Your task to perform on an android device: turn off notifications settings in the gmail app Image 0: 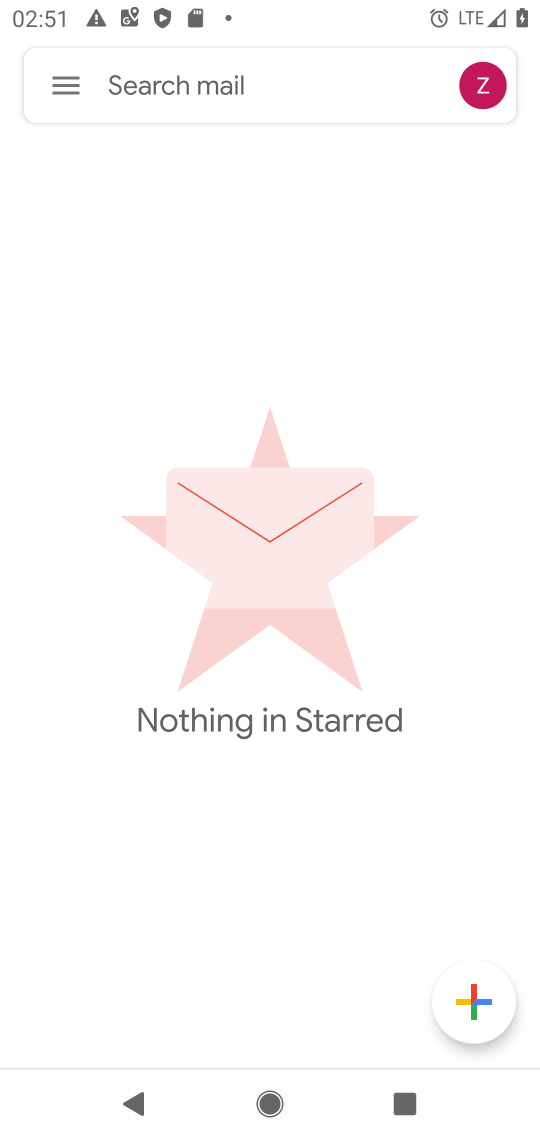
Step 0: press home button
Your task to perform on an android device: turn off notifications settings in the gmail app Image 1: 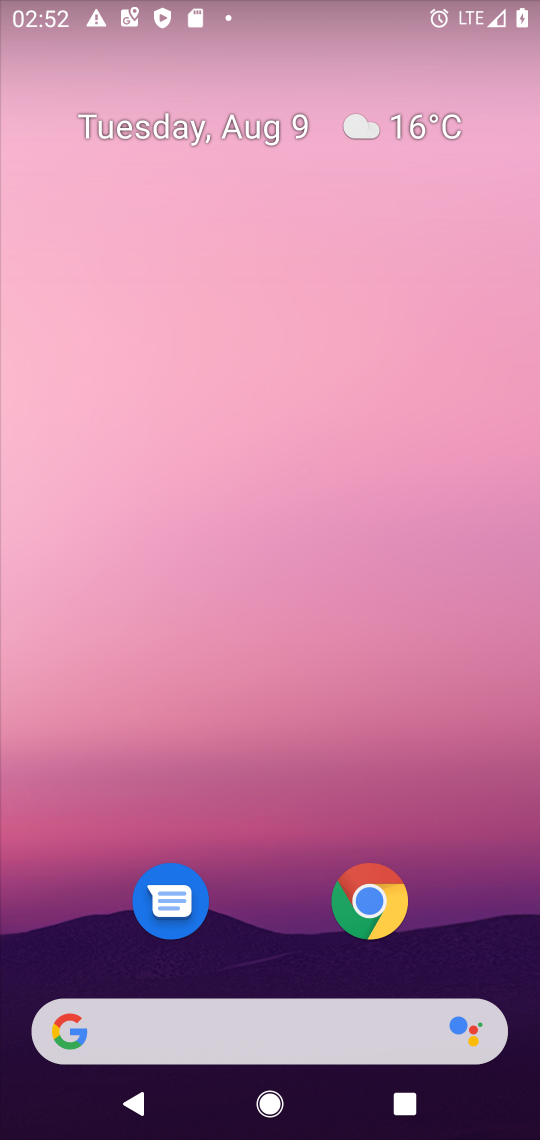
Step 1: drag from (496, 963) to (412, 195)
Your task to perform on an android device: turn off notifications settings in the gmail app Image 2: 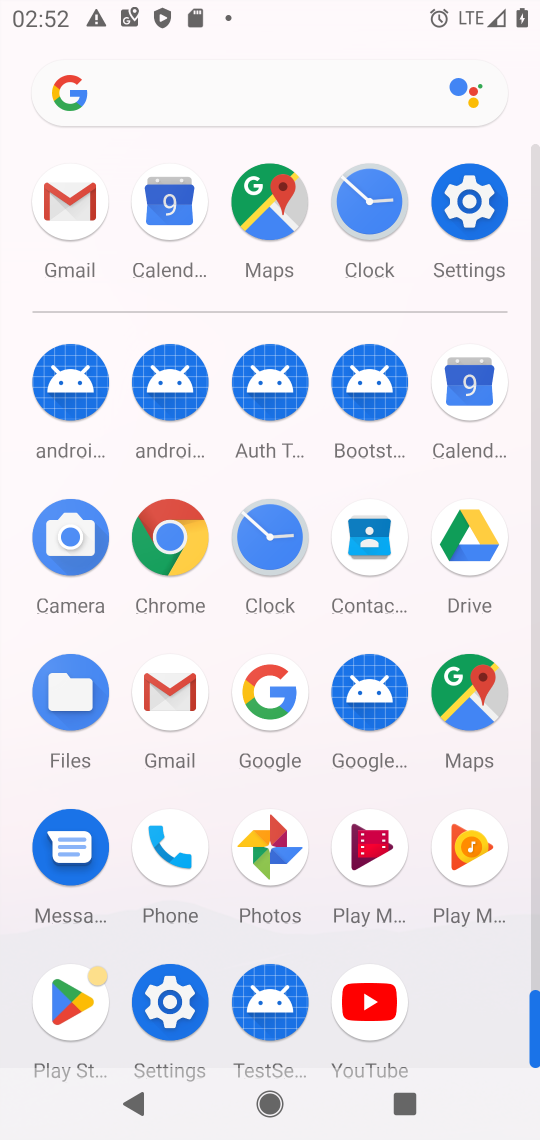
Step 2: click (170, 691)
Your task to perform on an android device: turn off notifications settings in the gmail app Image 3: 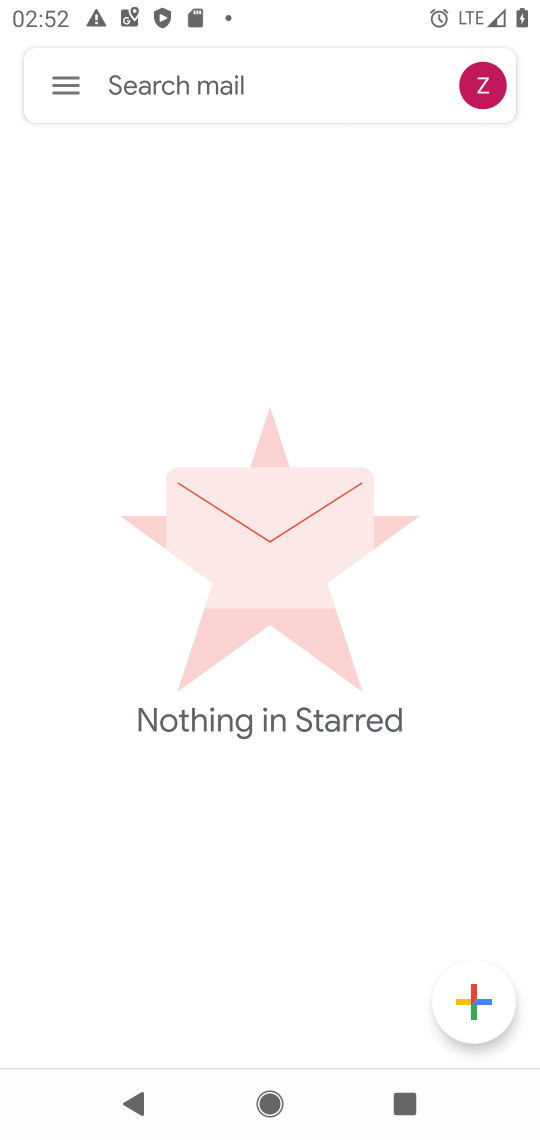
Step 3: click (59, 79)
Your task to perform on an android device: turn off notifications settings in the gmail app Image 4: 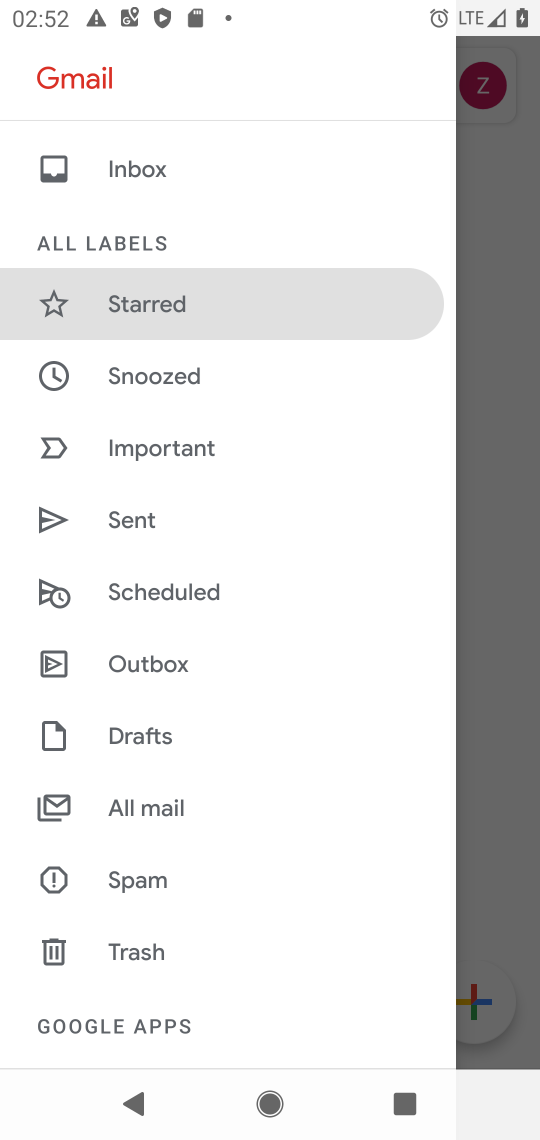
Step 4: drag from (241, 981) to (252, 416)
Your task to perform on an android device: turn off notifications settings in the gmail app Image 5: 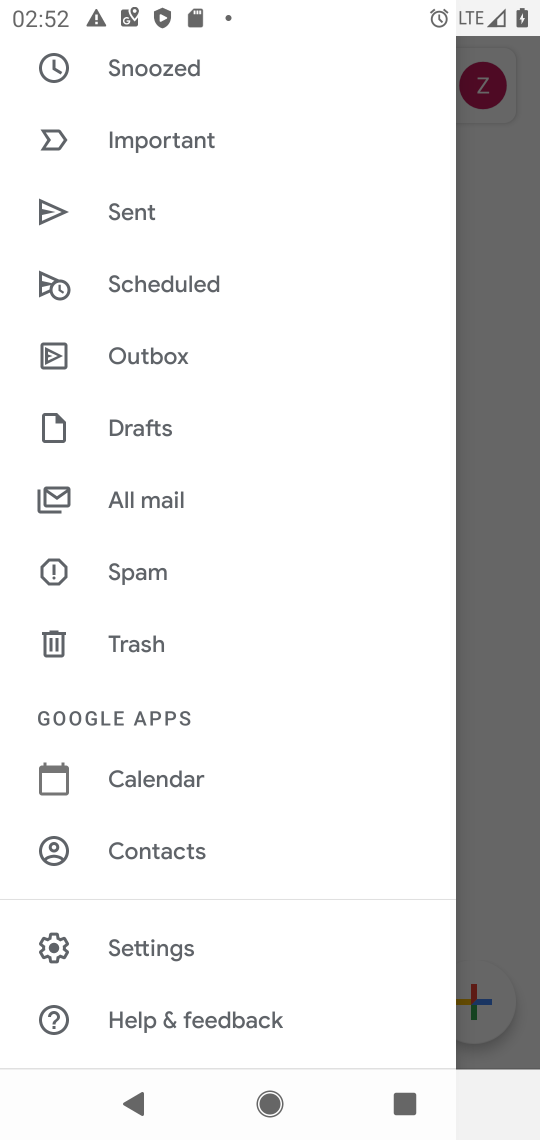
Step 5: click (163, 944)
Your task to perform on an android device: turn off notifications settings in the gmail app Image 6: 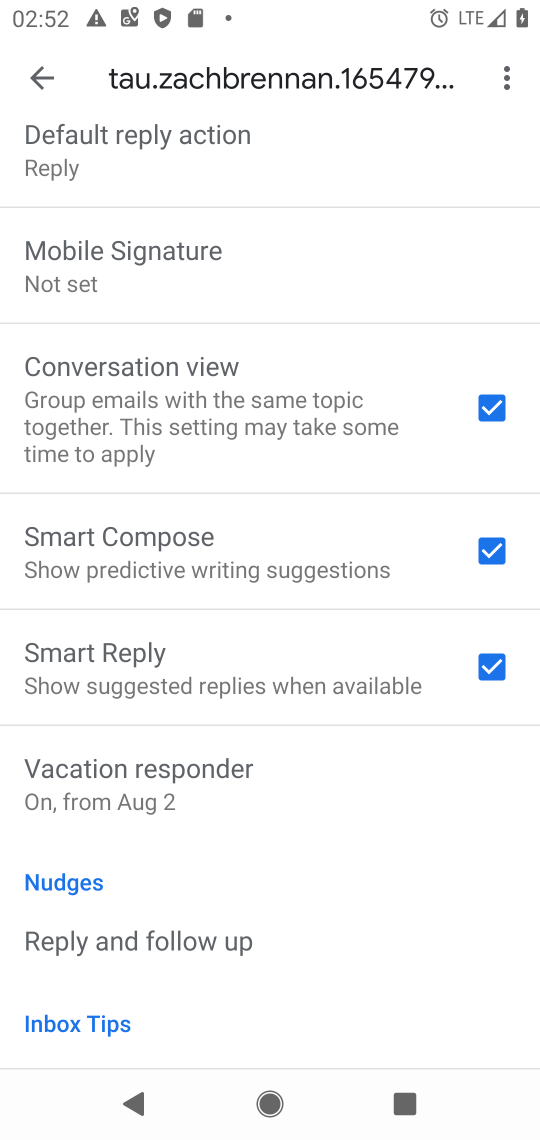
Step 6: drag from (317, 270) to (342, 835)
Your task to perform on an android device: turn off notifications settings in the gmail app Image 7: 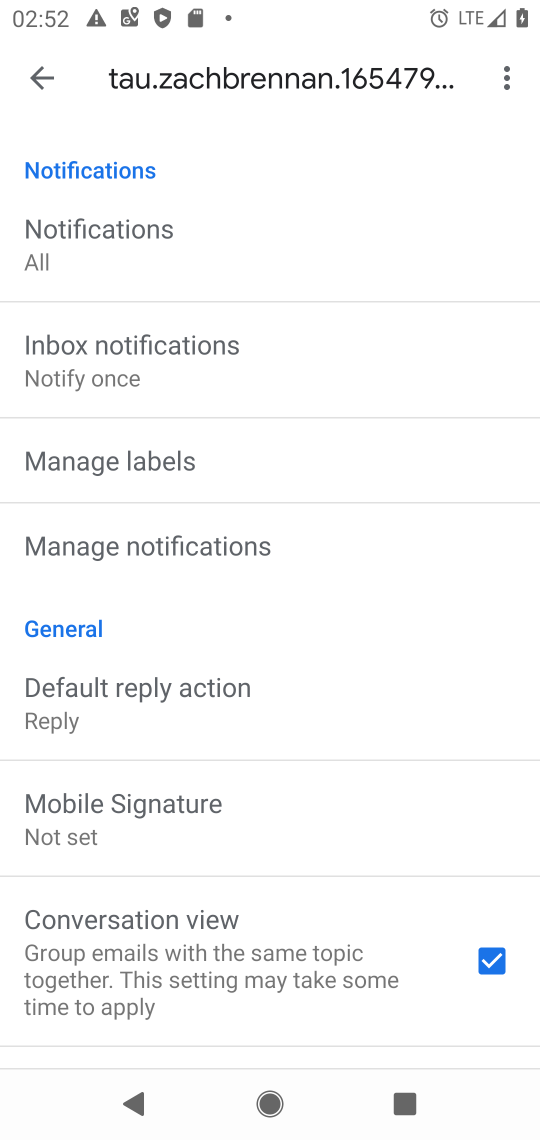
Step 7: click (161, 534)
Your task to perform on an android device: turn off notifications settings in the gmail app Image 8: 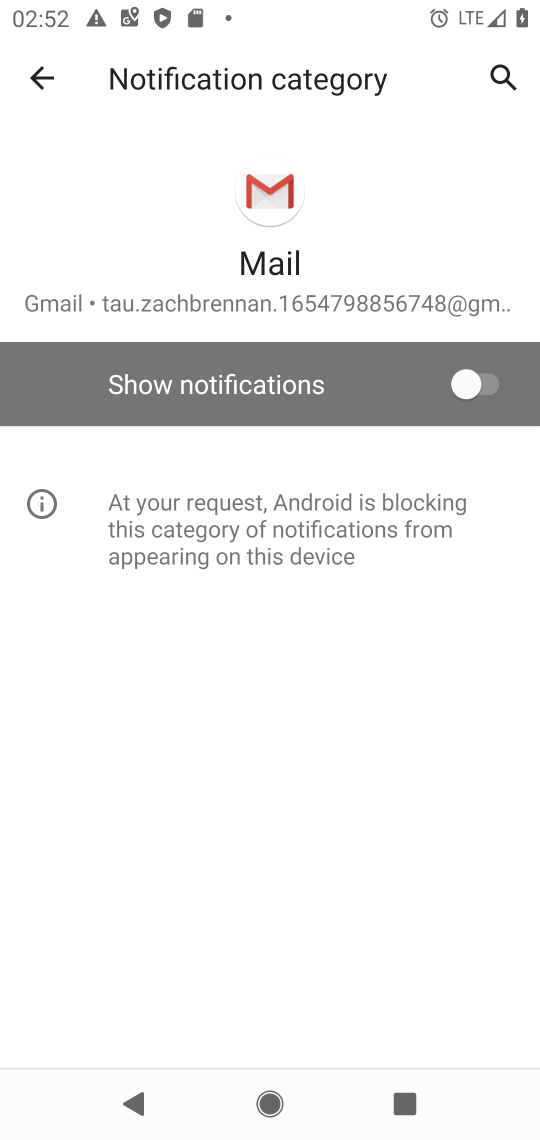
Step 8: task complete